Your task to perform on an android device: Set an alarm for 1pm Image 0: 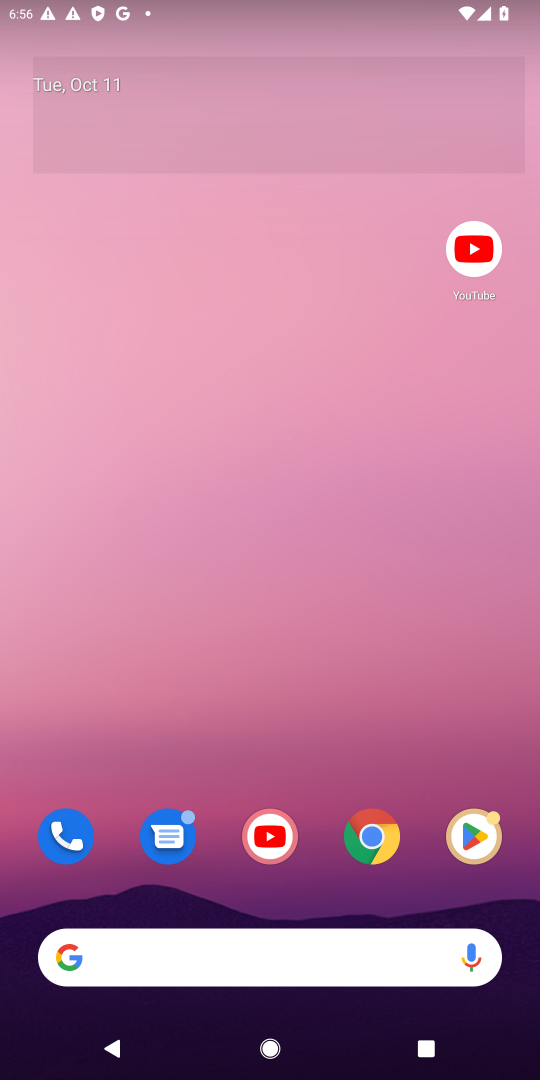
Step 0: drag from (209, 940) to (283, 157)
Your task to perform on an android device: Set an alarm for 1pm Image 1: 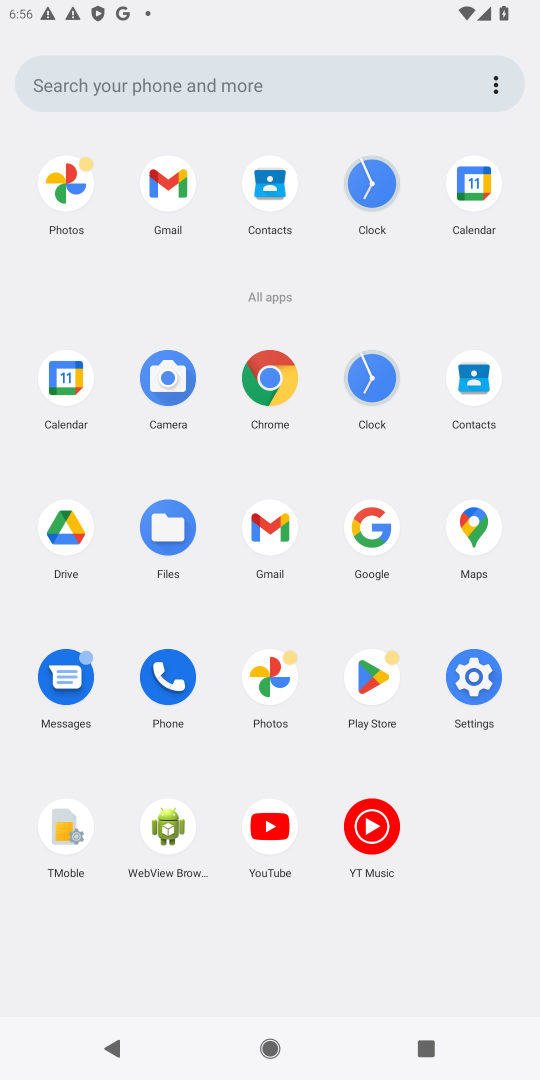
Step 1: click (383, 376)
Your task to perform on an android device: Set an alarm for 1pm Image 2: 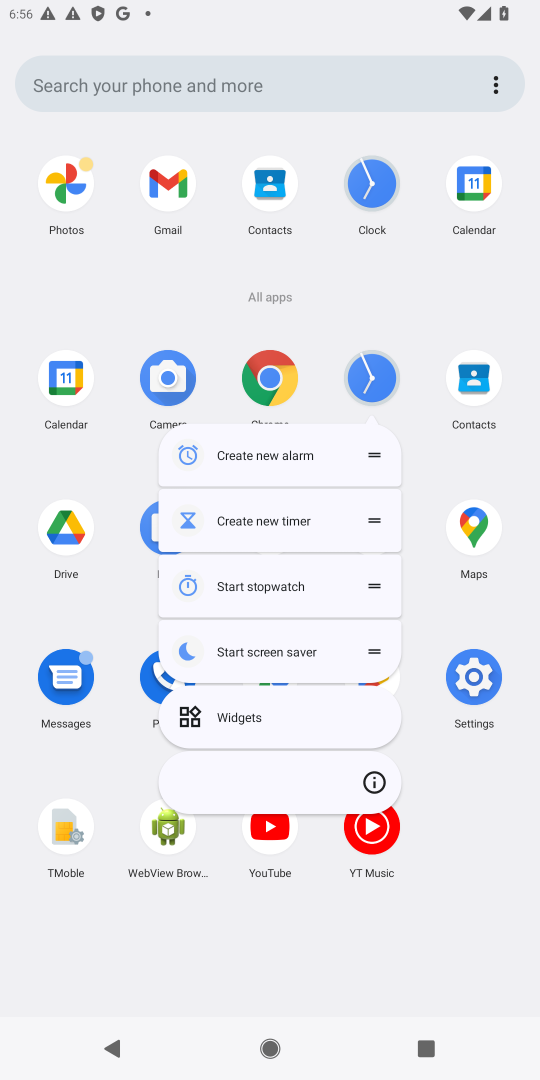
Step 2: click (378, 364)
Your task to perform on an android device: Set an alarm for 1pm Image 3: 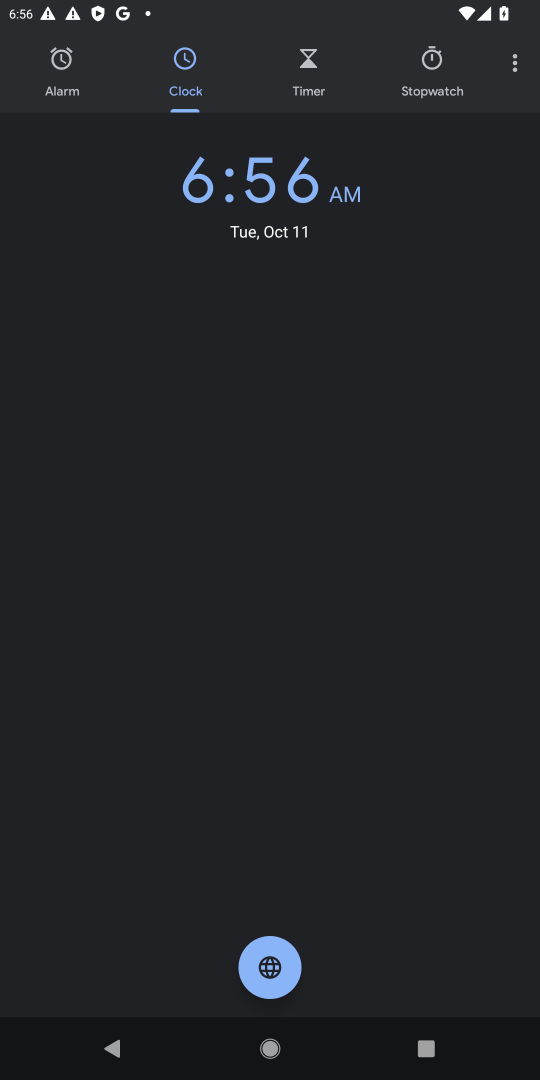
Step 3: click (66, 61)
Your task to perform on an android device: Set an alarm for 1pm Image 4: 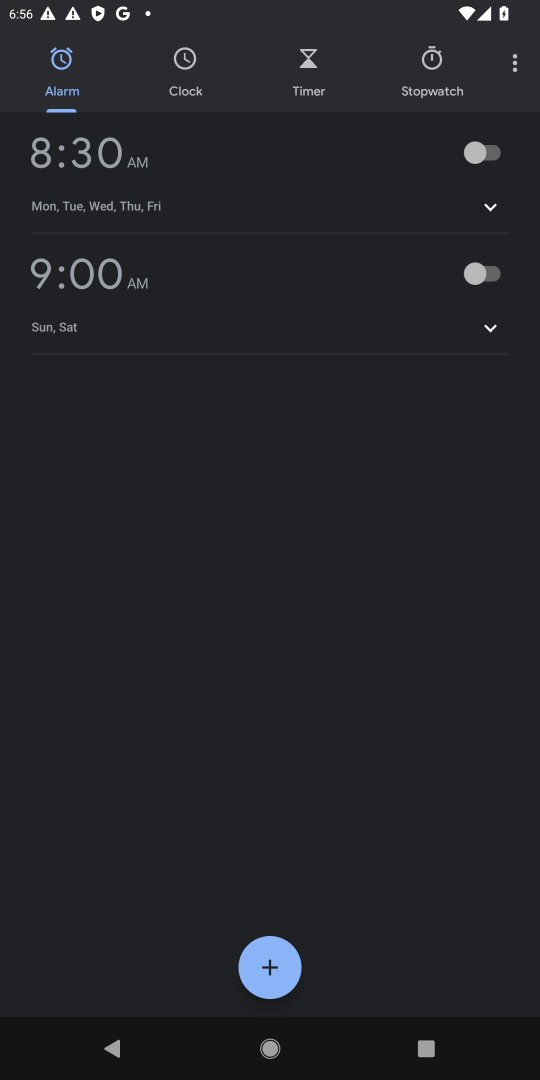
Step 4: click (238, 177)
Your task to perform on an android device: Set an alarm for 1pm Image 5: 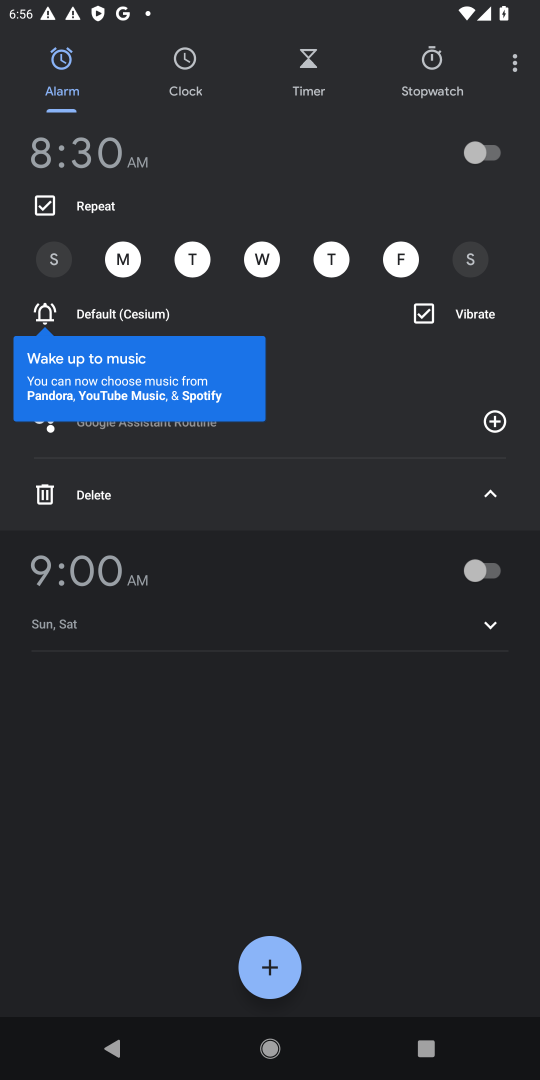
Step 5: click (85, 144)
Your task to perform on an android device: Set an alarm for 1pm Image 6: 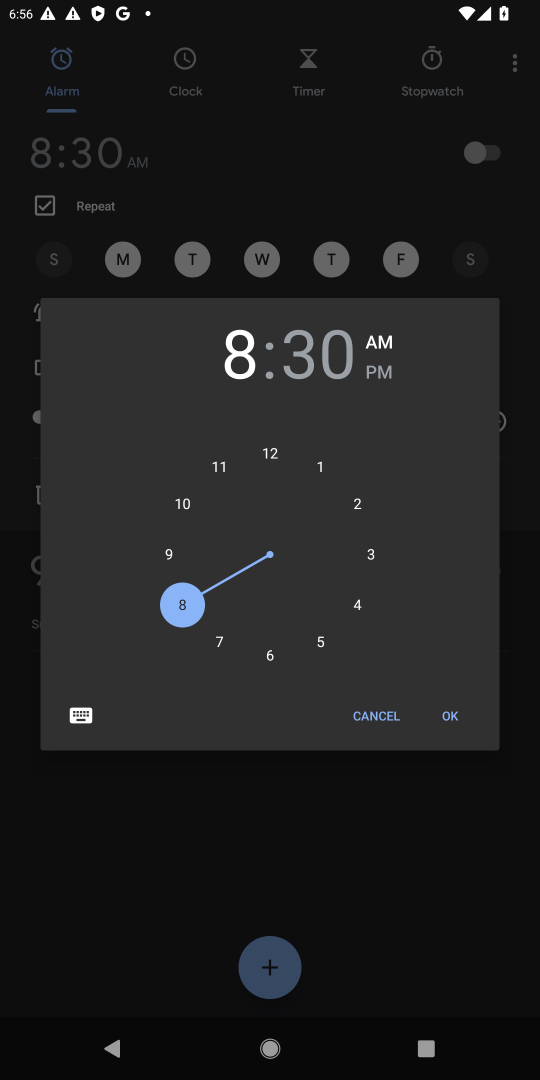
Step 6: click (323, 462)
Your task to perform on an android device: Set an alarm for 1pm Image 7: 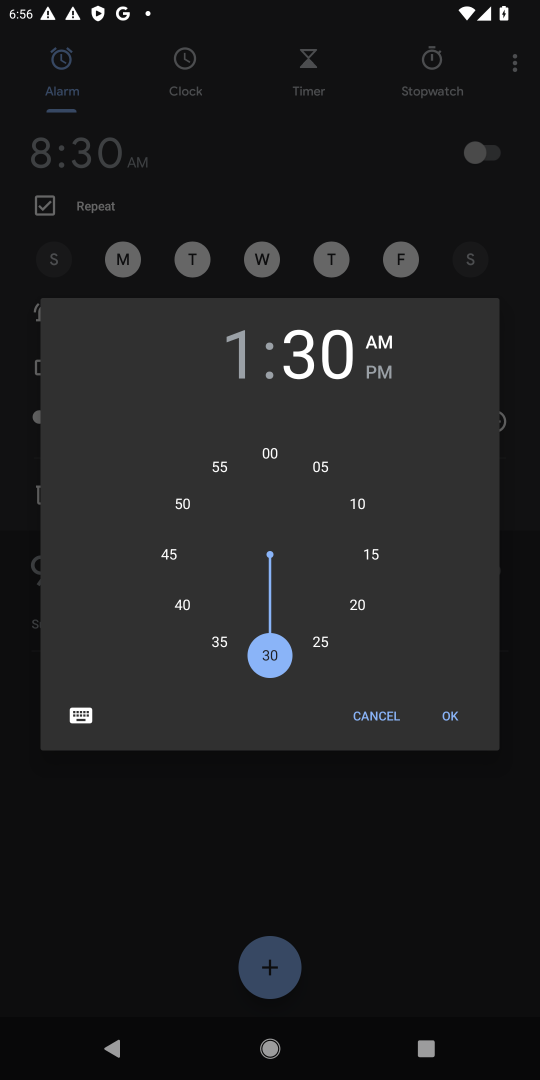
Step 7: click (270, 450)
Your task to perform on an android device: Set an alarm for 1pm Image 8: 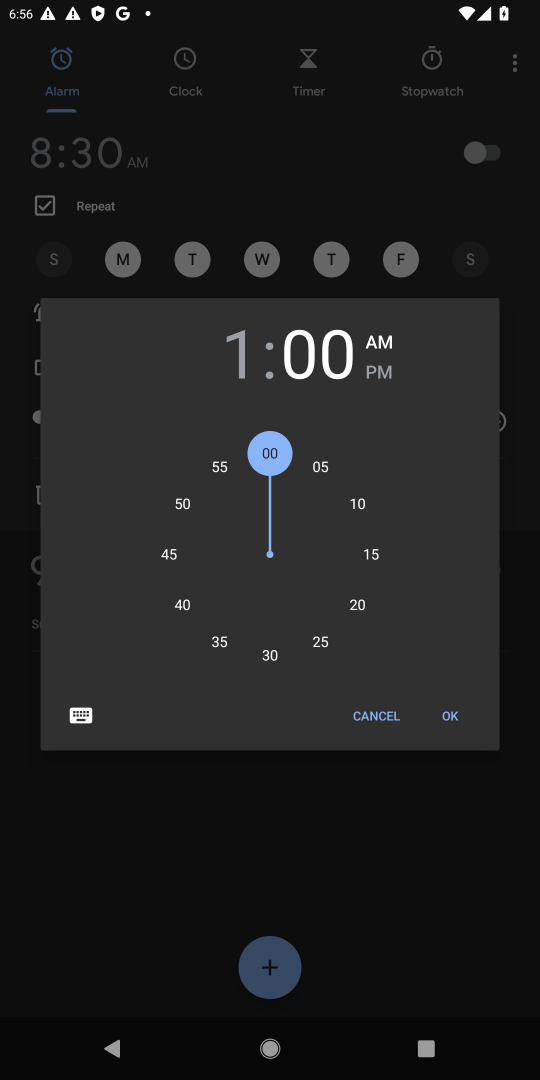
Step 8: click (387, 363)
Your task to perform on an android device: Set an alarm for 1pm Image 9: 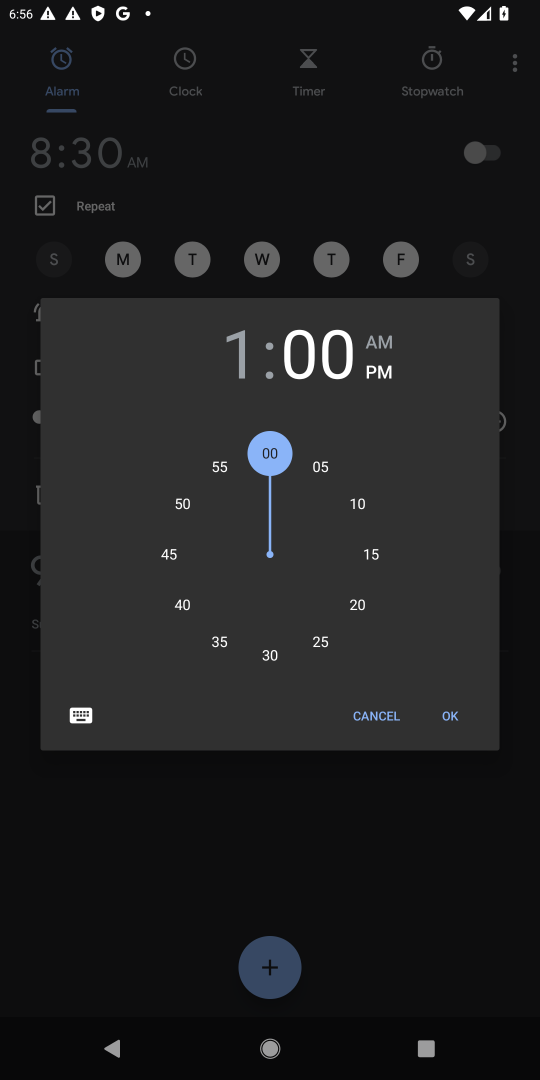
Step 9: click (459, 715)
Your task to perform on an android device: Set an alarm for 1pm Image 10: 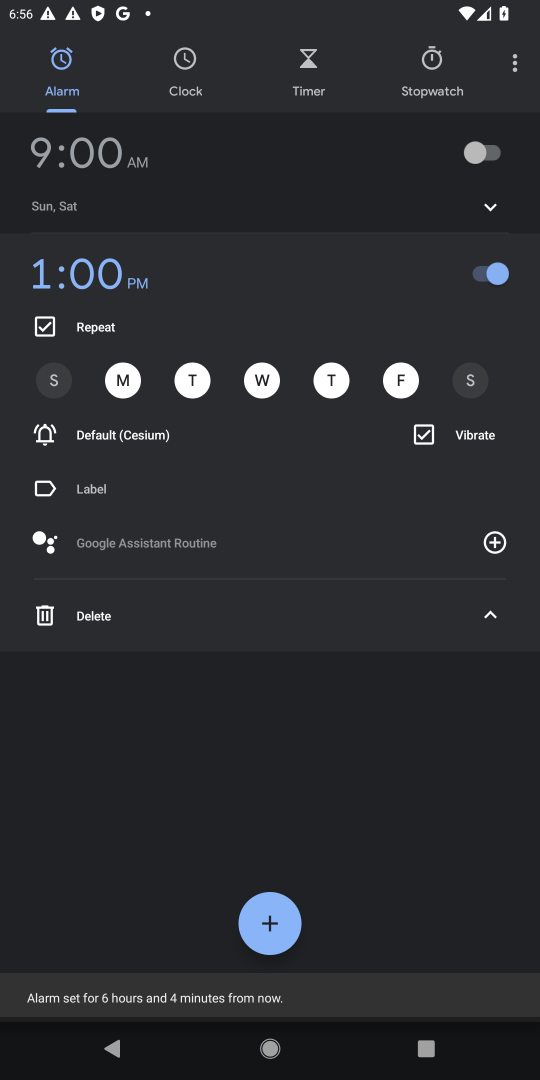
Step 10: task complete